Your task to perform on an android device: move a message to another label in the gmail app Image 0: 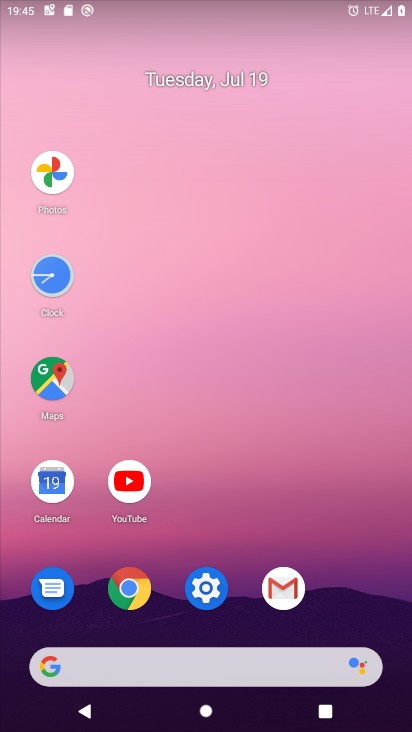
Step 0: click (284, 585)
Your task to perform on an android device: move a message to another label in the gmail app Image 1: 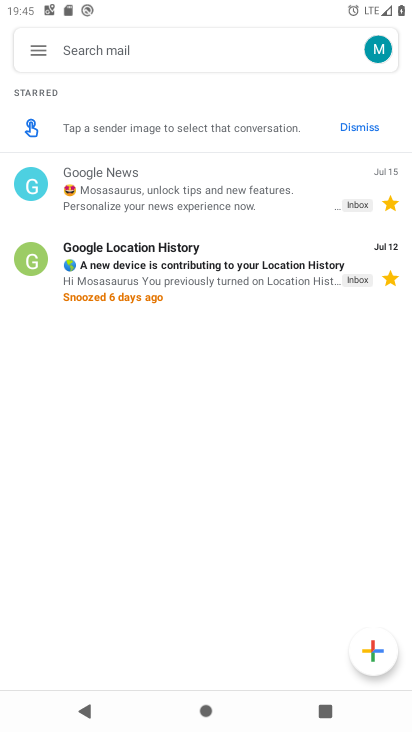
Step 1: click (113, 197)
Your task to perform on an android device: move a message to another label in the gmail app Image 2: 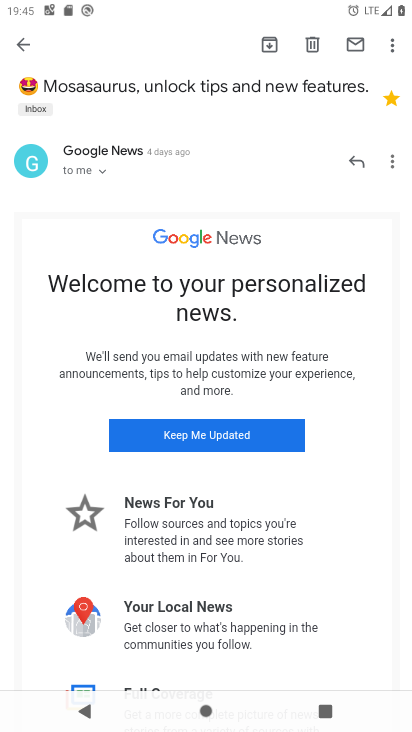
Step 2: click (391, 40)
Your task to perform on an android device: move a message to another label in the gmail app Image 3: 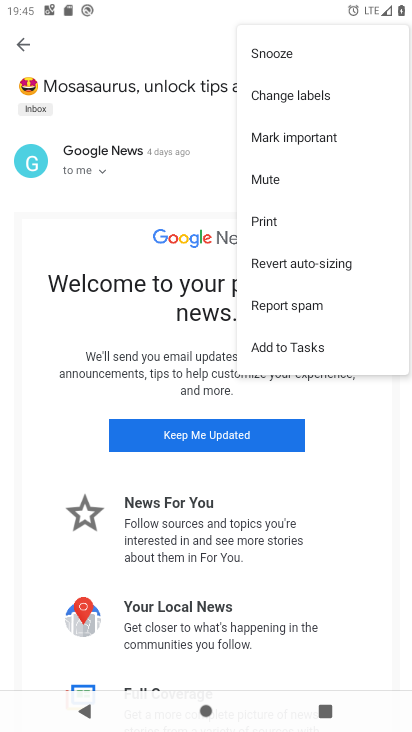
Step 3: click (298, 94)
Your task to perform on an android device: move a message to another label in the gmail app Image 4: 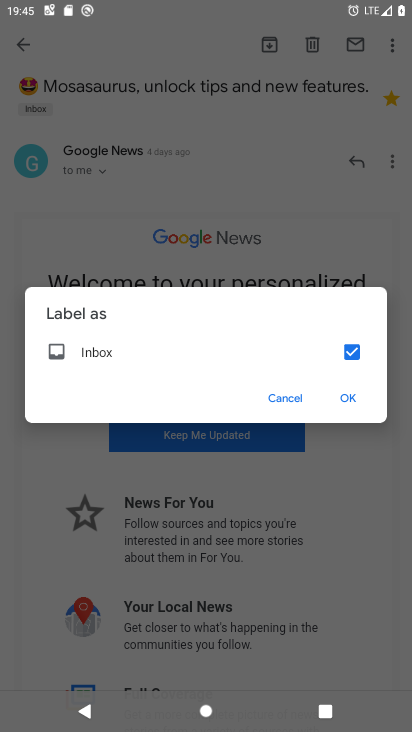
Step 4: click (344, 401)
Your task to perform on an android device: move a message to another label in the gmail app Image 5: 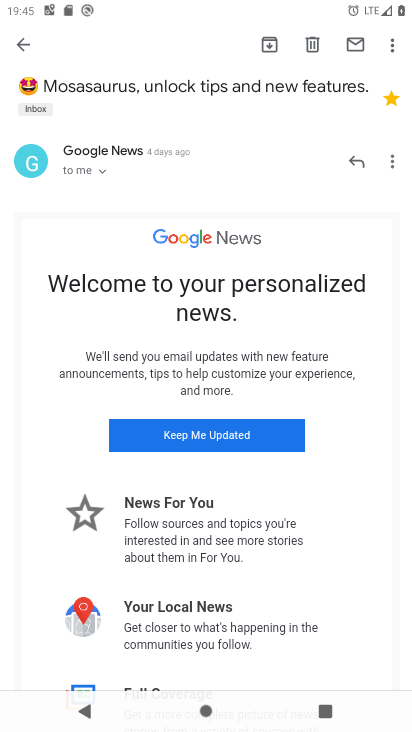
Step 5: task complete